Your task to perform on an android device: show emergency info Image 0: 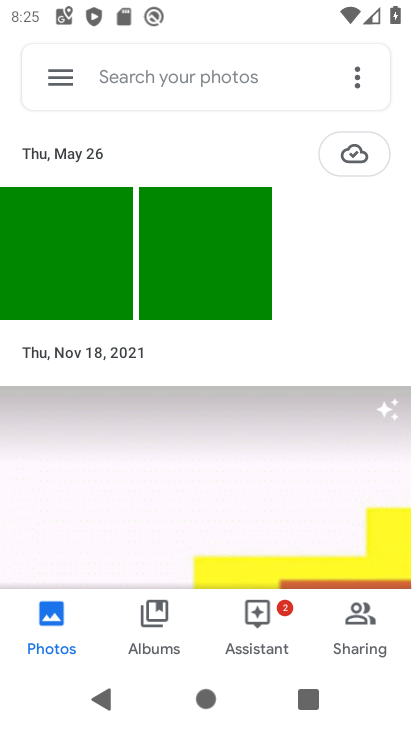
Step 0: press home button
Your task to perform on an android device: show emergency info Image 1: 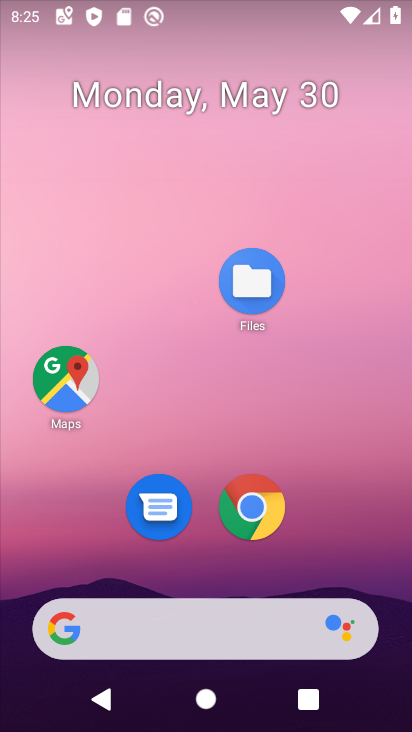
Step 1: drag from (183, 558) to (209, 12)
Your task to perform on an android device: show emergency info Image 2: 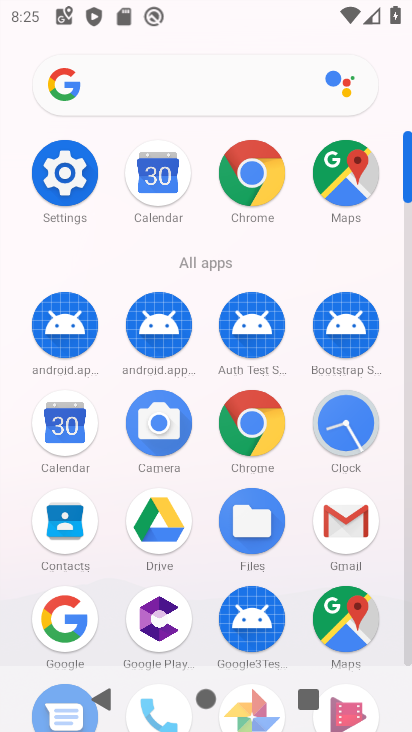
Step 2: click (76, 192)
Your task to perform on an android device: show emergency info Image 3: 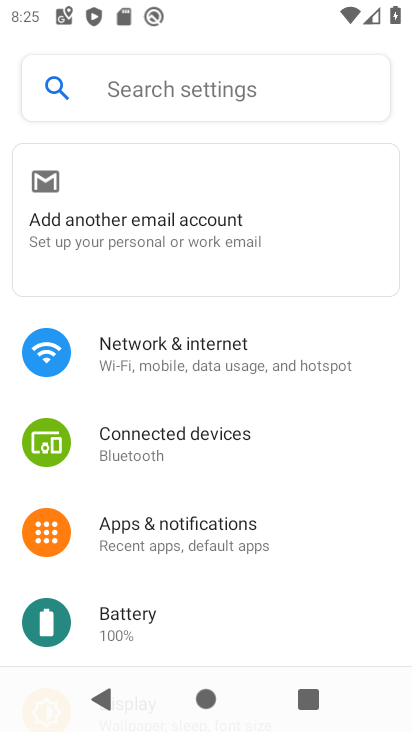
Step 3: drag from (143, 574) to (165, 266)
Your task to perform on an android device: show emergency info Image 4: 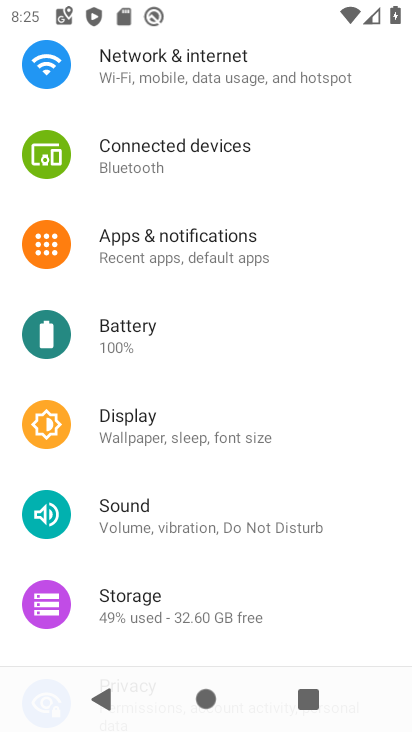
Step 4: drag from (153, 579) to (197, 42)
Your task to perform on an android device: show emergency info Image 5: 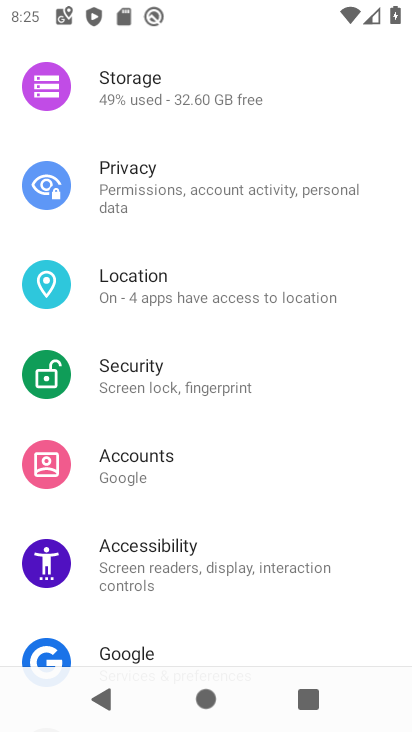
Step 5: drag from (202, 638) to (219, 47)
Your task to perform on an android device: show emergency info Image 6: 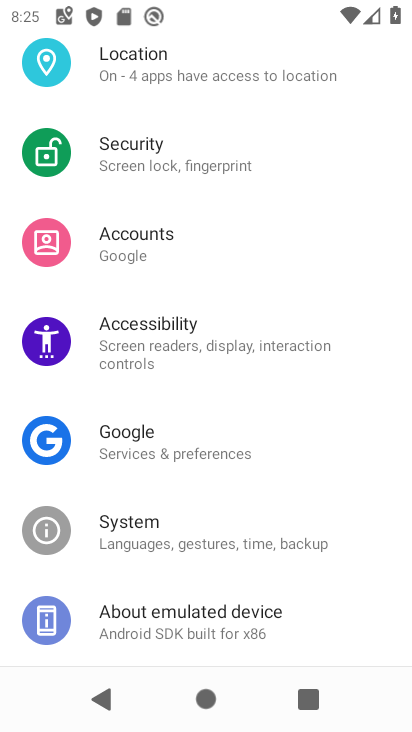
Step 6: click (193, 628)
Your task to perform on an android device: show emergency info Image 7: 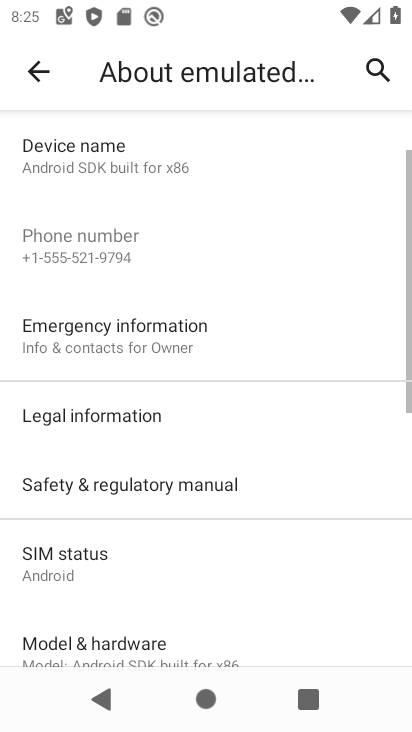
Step 7: click (144, 344)
Your task to perform on an android device: show emergency info Image 8: 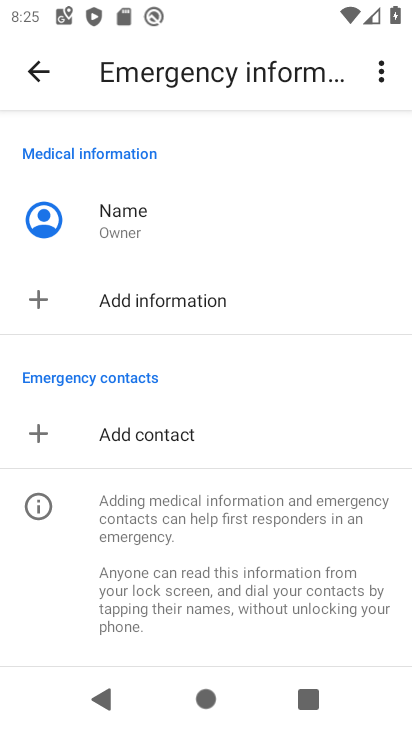
Step 8: task complete